Your task to perform on an android device: Turn off the flashlight Image 0: 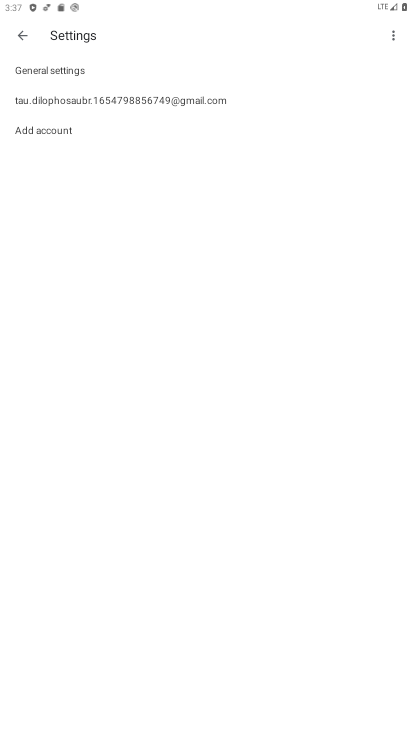
Step 0: drag from (209, 669) to (190, 148)
Your task to perform on an android device: Turn off the flashlight Image 1: 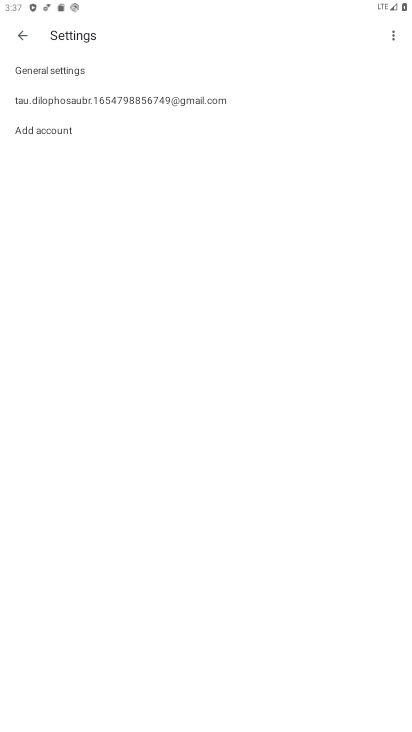
Step 1: press home button
Your task to perform on an android device: Turn off the flashlight Image 2: 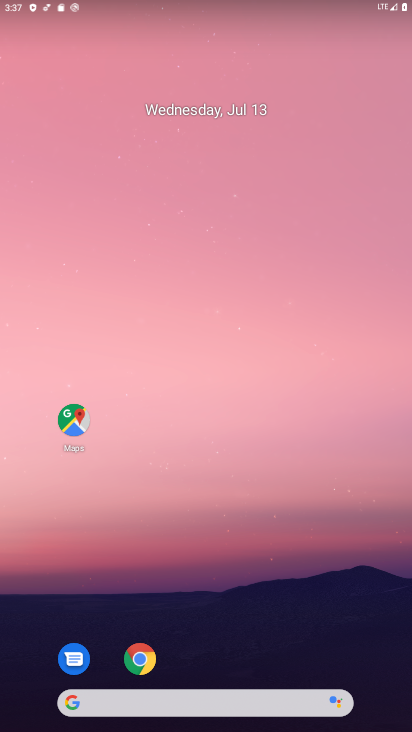
Step 2: drag from (200, 517) to (175, 201)
Your task to perform on an android device: Turn off the flashlight Image 3: 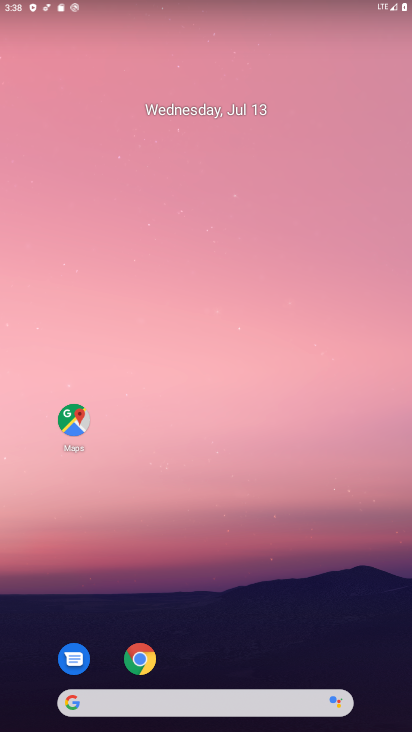
Step 3: drag from (222, 667) to (178, 172)
Your task to perform on an android device: Turn off the flashlight Image 4: 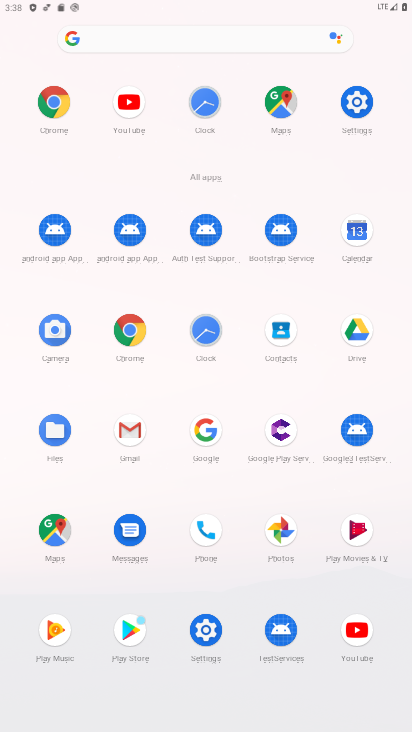
Step 4: click (352, 100)
Your task to perform on an android device: Turn off the flashlight Image 5: 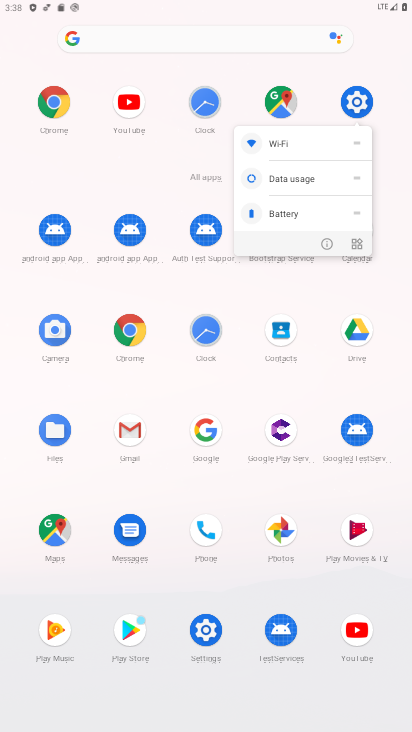
Step 5: click (356, 97)
Your task to perform on an android device: Turn off the flashlight Image 6: 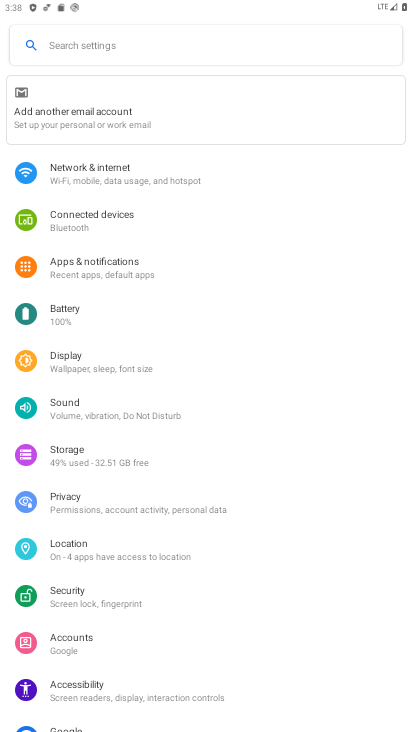
Step 6: click (104, 38)
Your task to perform on an android device: Turn off the flashlight Image 7: 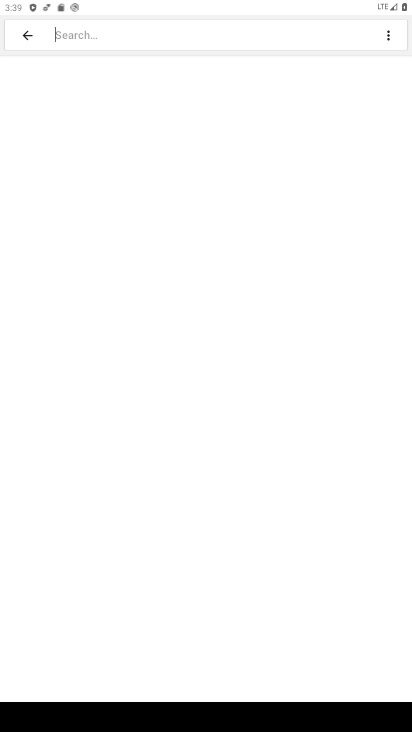
Step 7: type "flashlight"
Your task to perform on an android device: Turn off the flashlight Image 8: 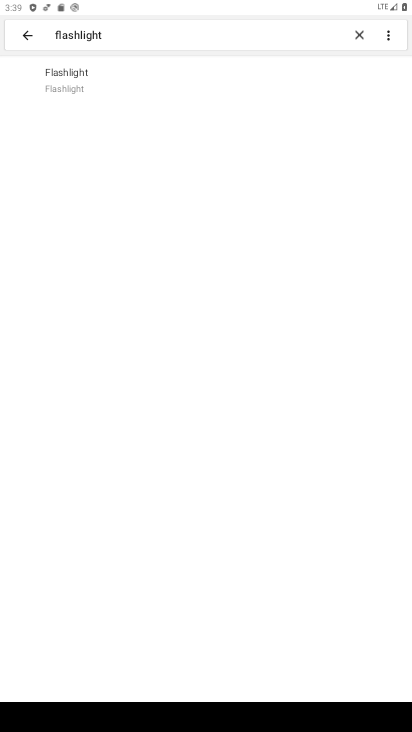
Step 8: click (91, 77)
Your task to perform on an android device: Turn off the flashlight Image 9: 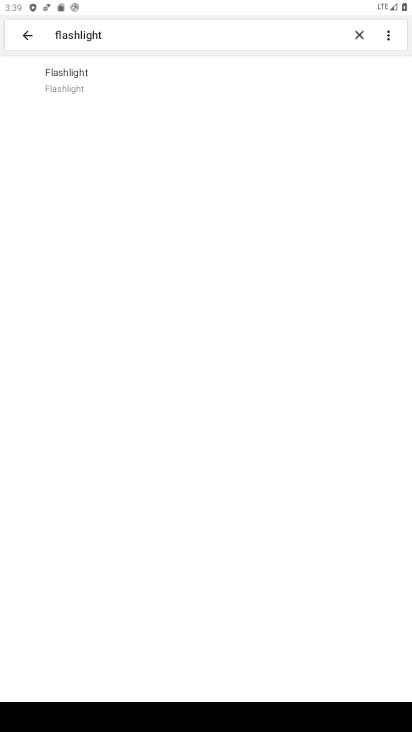
Step 9: task complete